Your task to perform on an android device: Go to network settings Image 0: 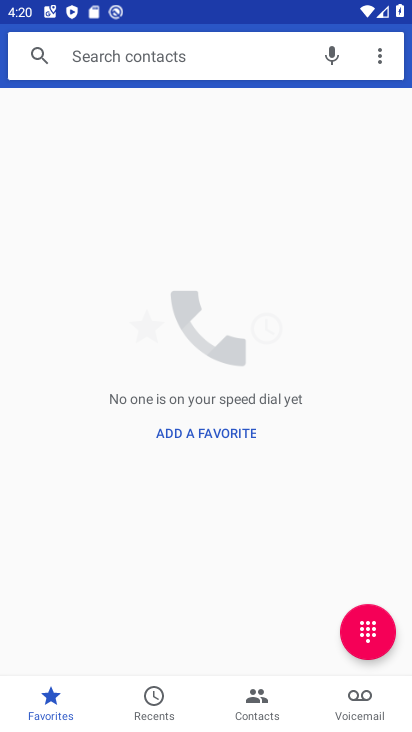
Step 0: press home button
Your task to perform on an android device: Go to network settings Image 1: 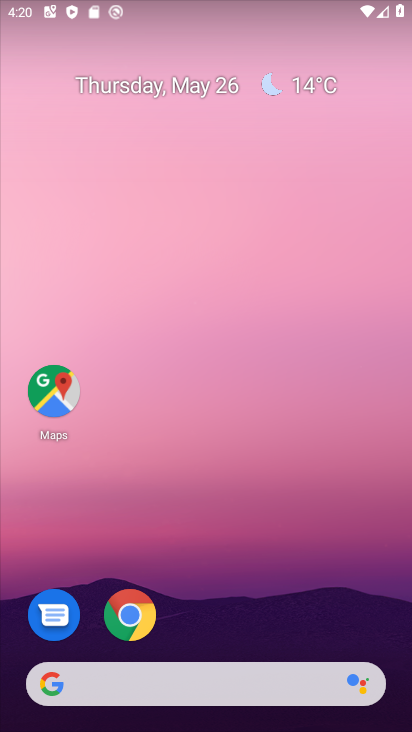
Step 1: drag from (275, 531) to (221, 142)
Your task to perform on an android device: Go to network settings Image 2: 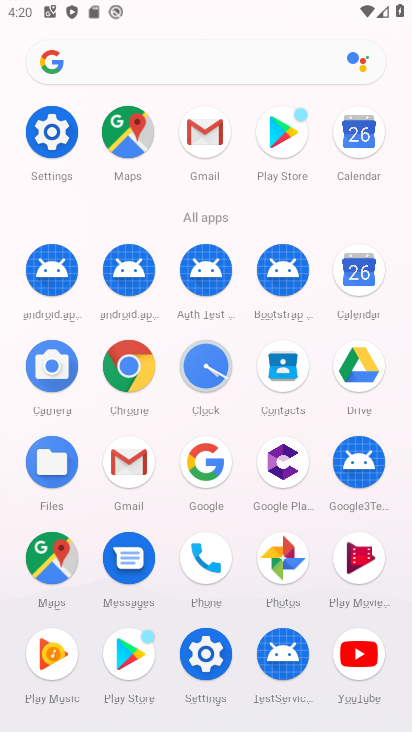
Step 2: click (56, 146)
Your task to perform on an android device: Go to network settings Image 3: 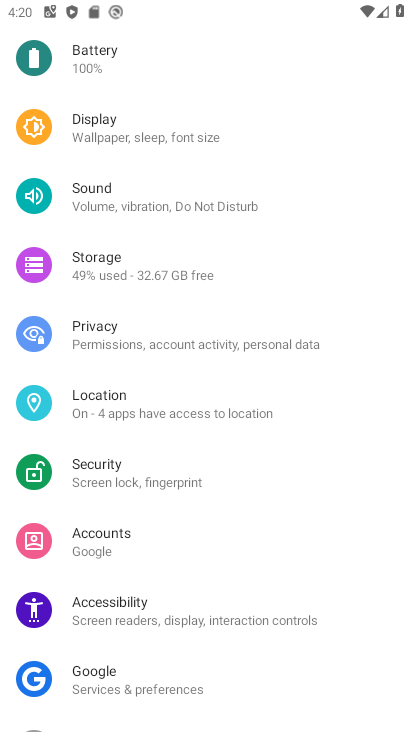
Step 3: drag from (158, 581) to (154, 715)
Your task to perform on an android device: Go to network settings Image 4: 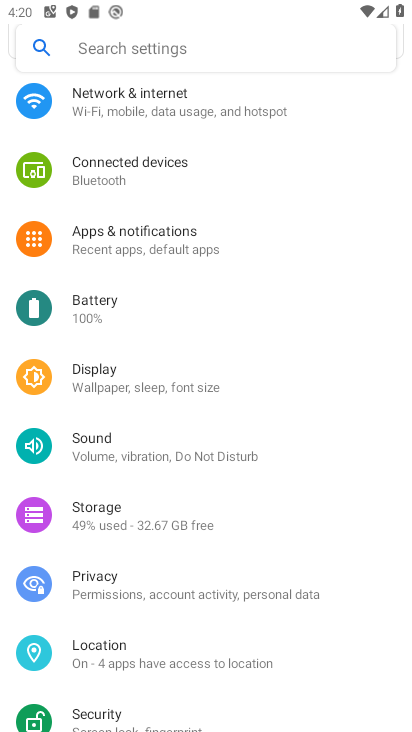
Step 4: click (146, 123)
Your task to perform on an android device: Go to network settings Image 5: 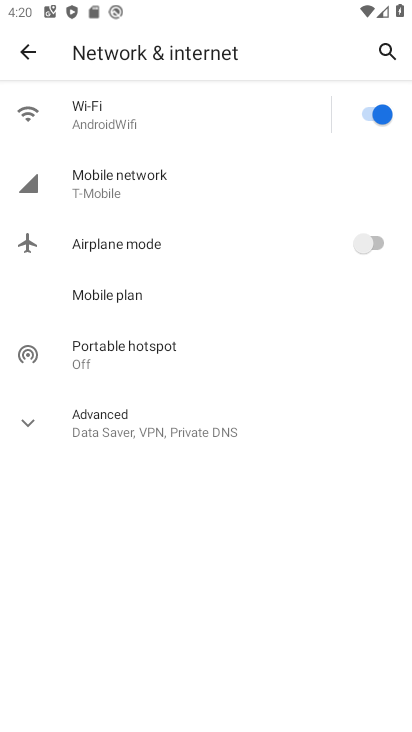
Step 5: task complete